Your task to perform on an android device: turn off translation in the chrome app Image 0: 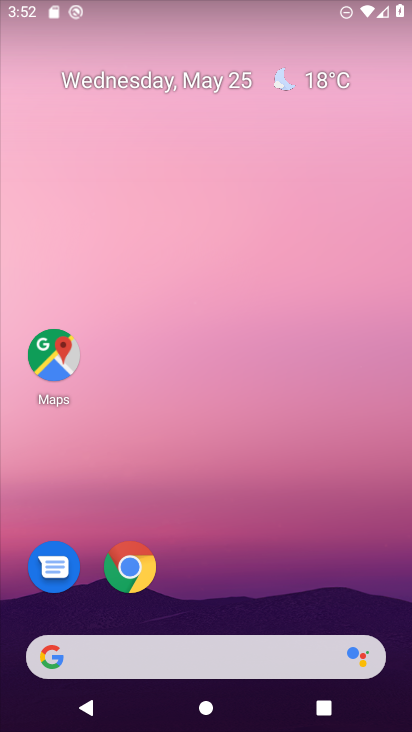
Step 0: drag from (363, 578) to (348, 260)
Your task to perform on an android device: turn off translation in the chrome app Image 1: 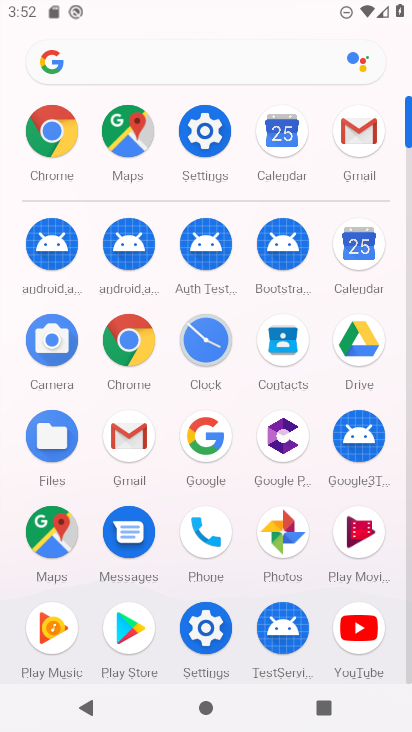
Step 1: click (122, 357)
Your task to perform on an android device: turn off translation in the chrome app Image 2: 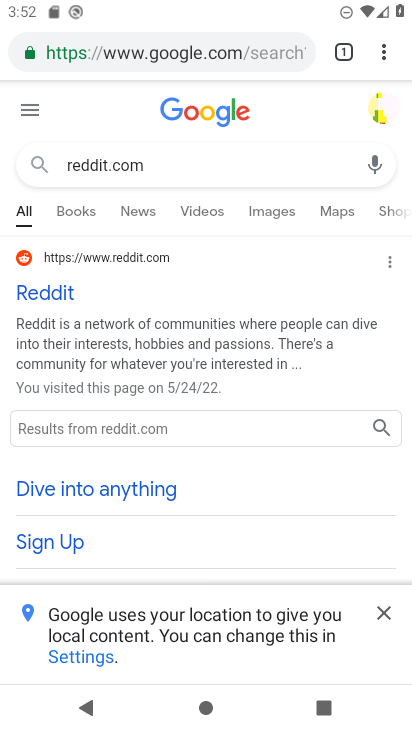
Step 2: click (379, 62)
Your task to perform on an android device: turn off translation in the chrome app Image 3: 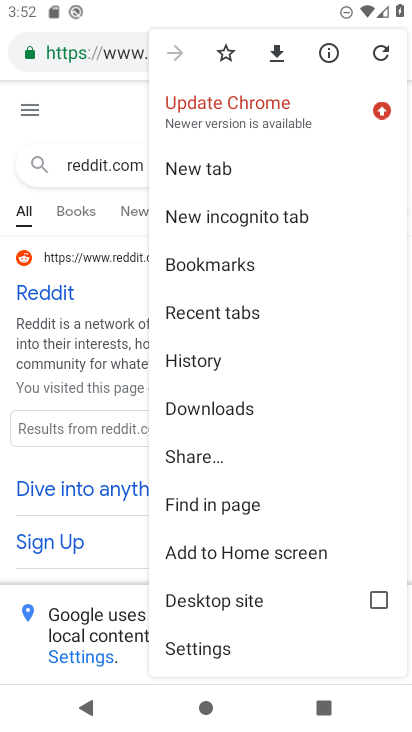
Step 3: click (239, 648)
Your task to perform on an android device: turn off translation in the chrome app Image 4: 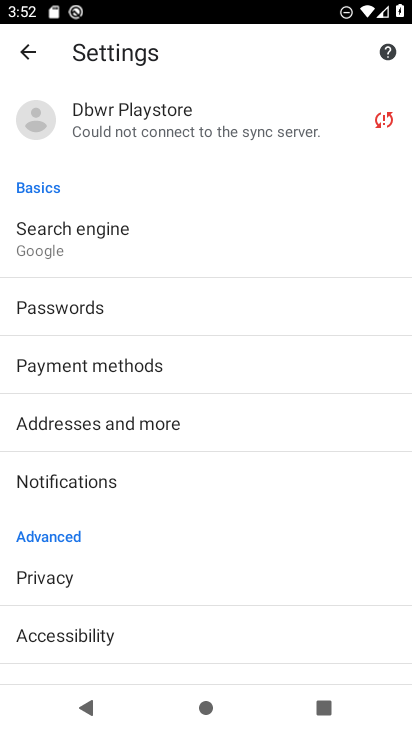
Step 4: drag from (244, 598) to (254, 530)
Your task to perform on an android device: turn off translation in the chrome app Image 5: 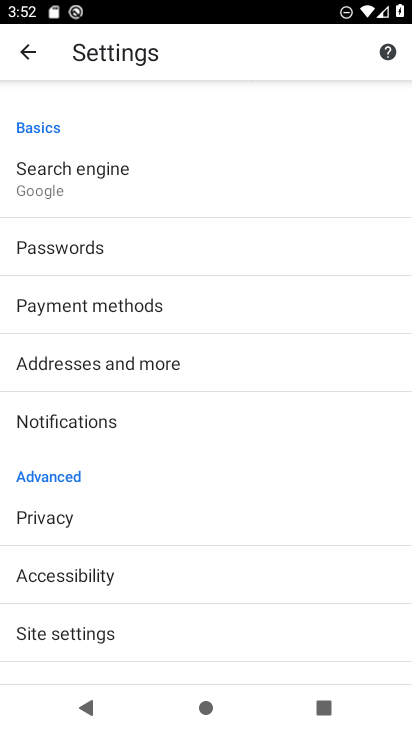
Step 5: drag from (259, 627) to (252, 553)
Your task to perform on an android device: turn off translation in the chrome app Image 6: 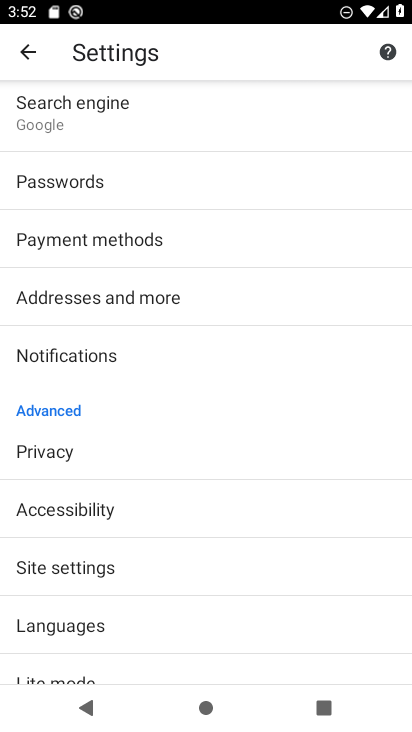
Step 6: drag from (253, 627) to (258, 543)
Your task to perform on an android device: turn off translation in the chrome app Image 7: 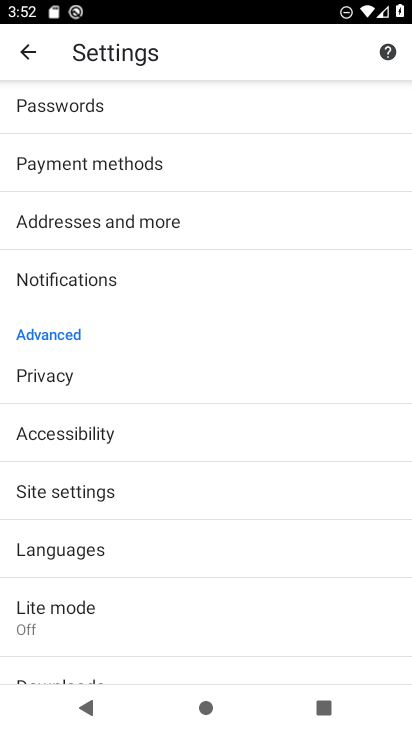
Step 7: drag from (248, 624) to (259, 556)
Your task to perform on an android device: turn off translation in the chrome app Image 8: 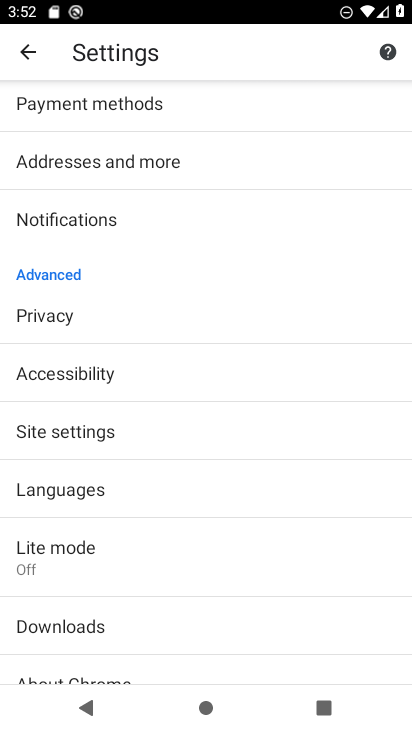
Step 8: drag from (272, 627) to (288, 543)
Your task to perform on an android device: turn off translation in the chrome app Image 9: 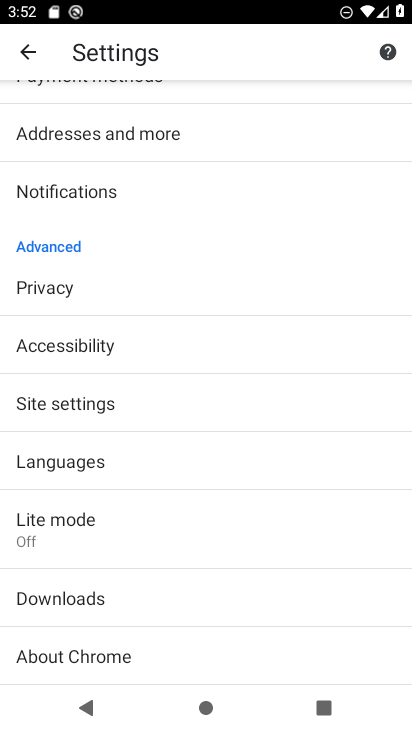
Step 9: drag from (284, 625) to (293, 527)
Your task to perform on an android device: turn off translation in the chrome app Image 10: 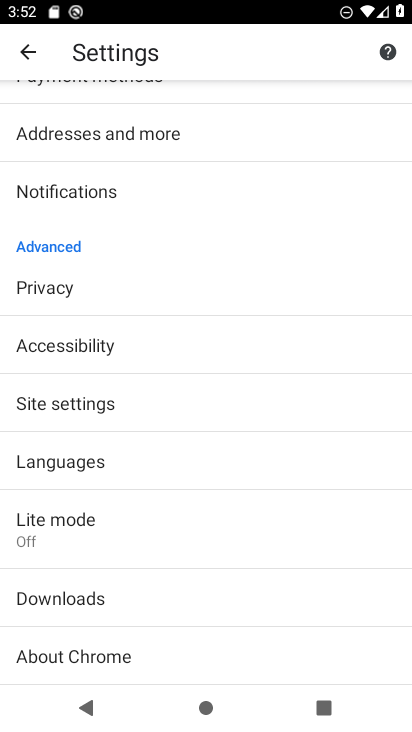
Step 10: drag from (289, 404) to (281, 476)
Your task to perform on an android device: turn off translation in the chrome app Image 11: 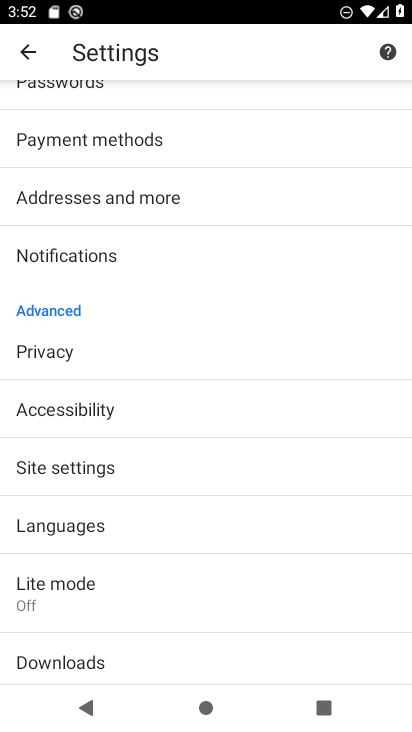
Step 11: drag from (284, 369) to (277, 453)
Your task to perform on an android device: turn off translation in the chrome app Image 12: 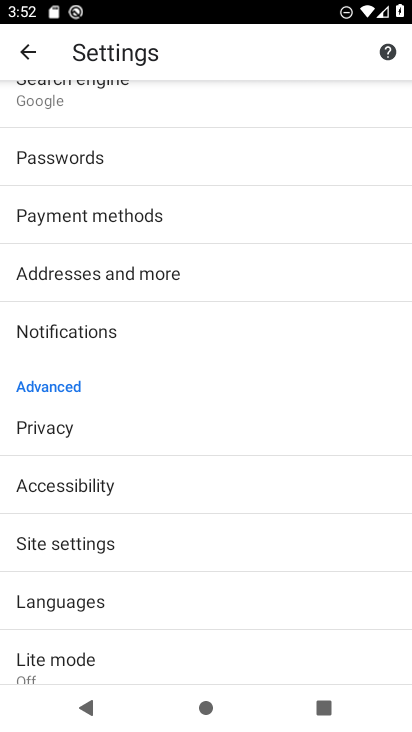
Step 12: drag from (274, 348) to (279, 423)
Your task to perform on an android device: turn off translation in the chrome app Image 13: 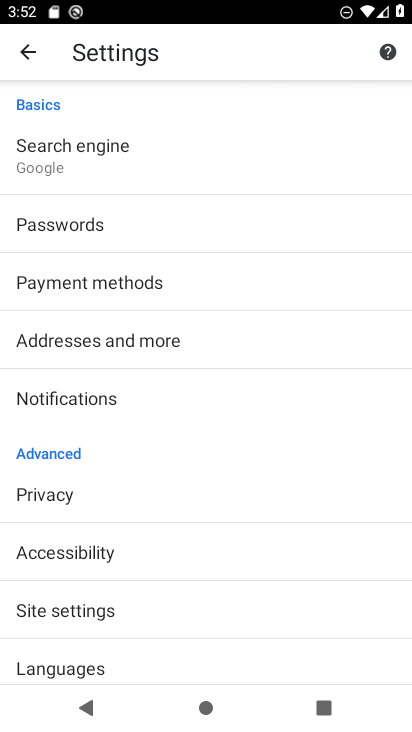
Step 13: drag from (284, 328) to (279, 418)
Your task to perform on an android device: turn off translation in the chrome app Image 14: 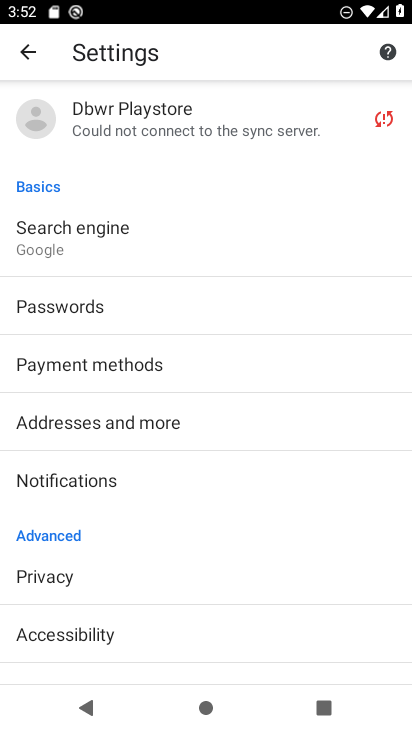
Step 14: drag from (287, 506) to (292, 419)
Your task to perform on an android device: turn off translation in the chrome app Image 15: 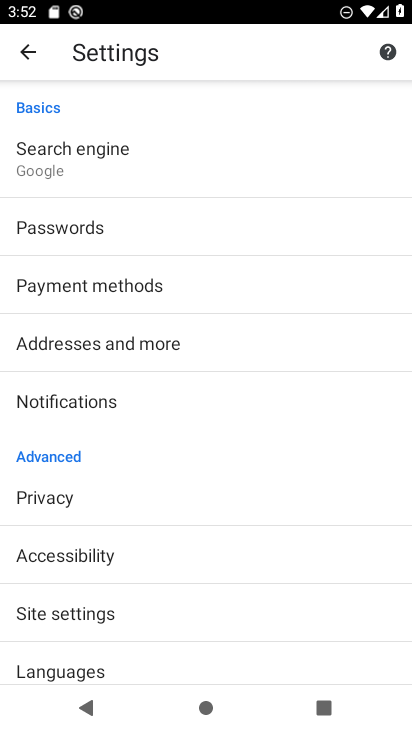
Step 15: drag from (304, 527) to (326, 430)
Your task to perform on an android device: turn off translation in the chrome app Image 16: 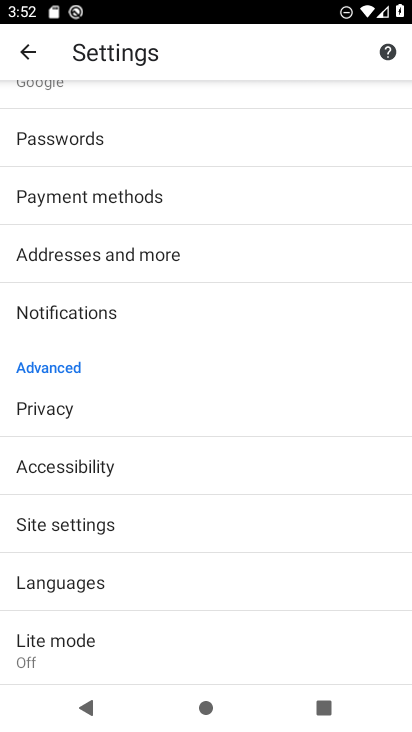
Step 16: click (308, 576)
Your task to perform on an android device: turn off translation in the chrome app Image 17: 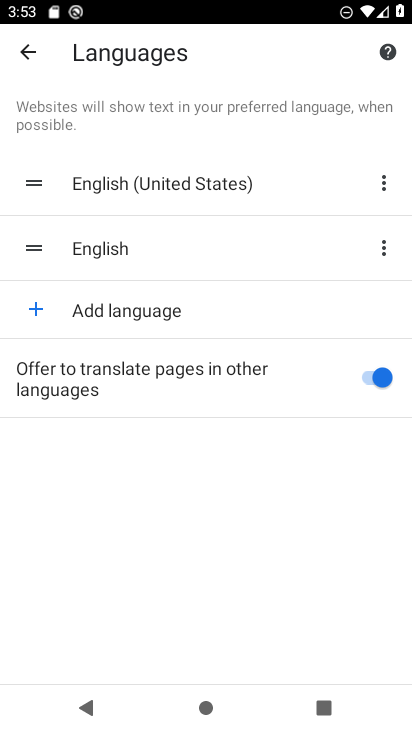
Step 17: click (378, 377)
Your task to perform on an android device: turn off translation in the chrome app Image 18: 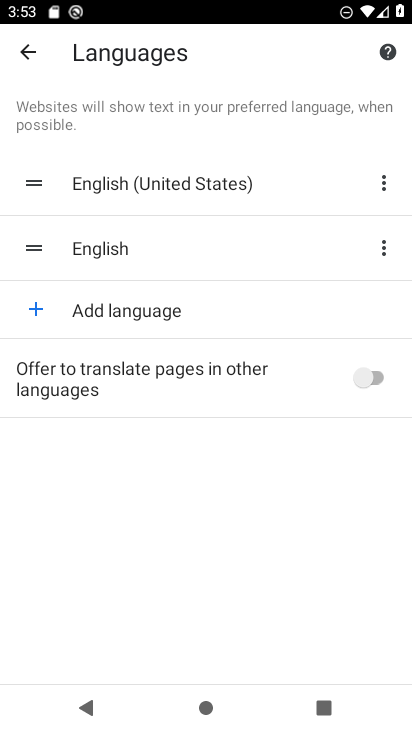
Step 18: task complete